Your task to perform on an android device: Open calendar and show me the third week of next month Image 0: 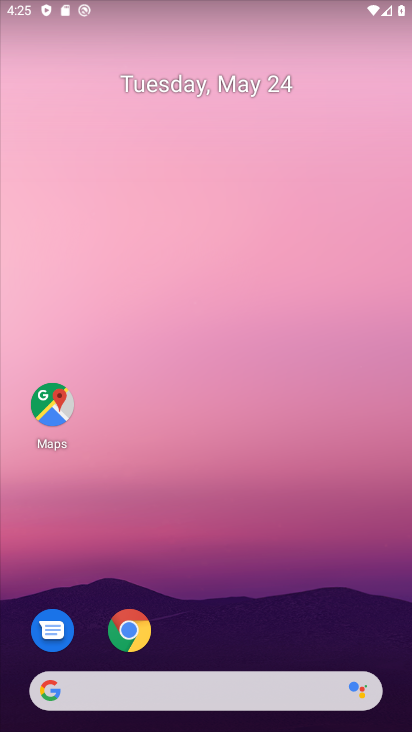
Step 0: click (232, 88)
Your task to perform on an android device: Open calendar and show me the third week of next month Image 1: 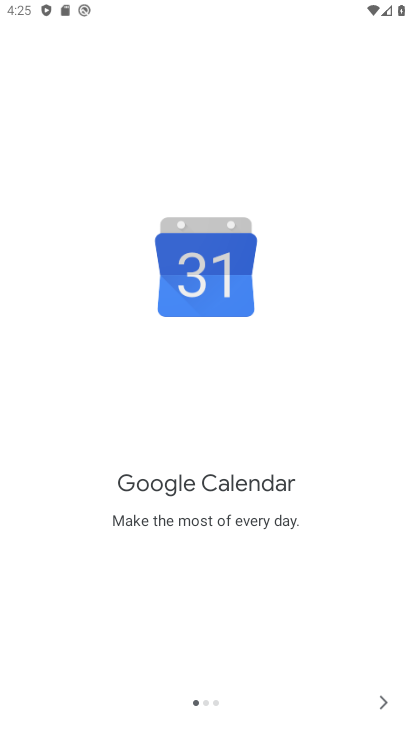
Step 1: click (382, 694)
Your task to perform on an android device: Open calendar and show me the third week of next month Image 2: 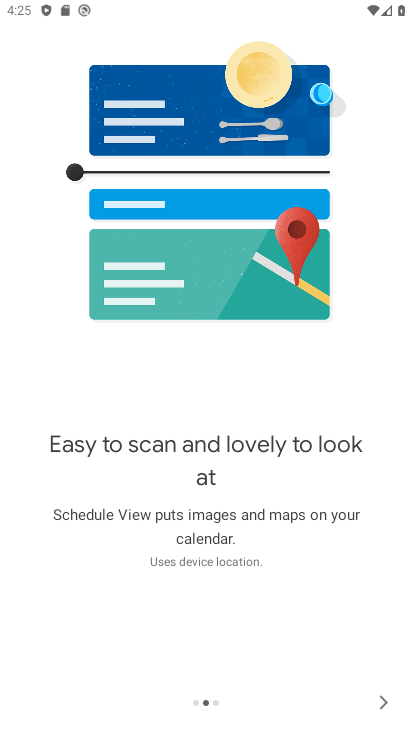
Step 2: click (382, 694)
Your task to perform on an android device: Open calendar and show me the third week of next month Image 3: 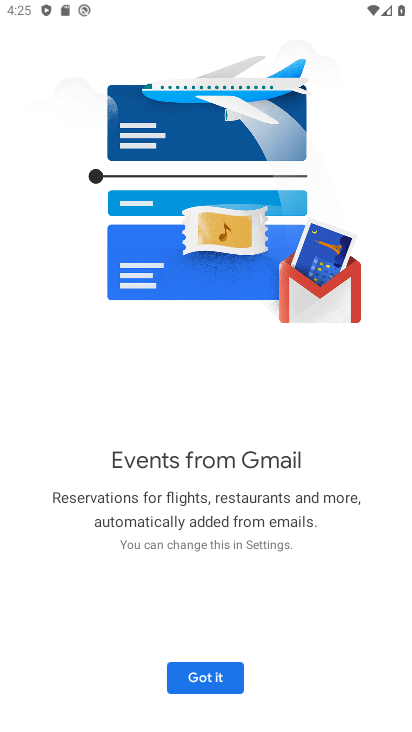
Step 3: click (231, 686)
Your task to perform on an android device: Open calendar and show me the third week of next month Image 4: 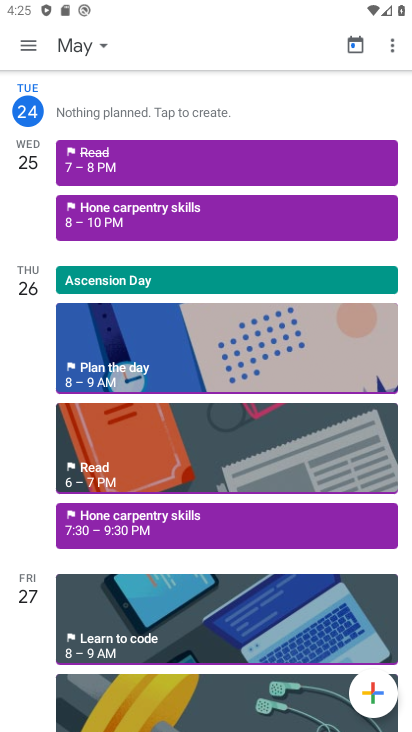
Step 4: click (90, 63)
Your task to perform on an android device: Open calendar and show me the third week of next month Image 5: 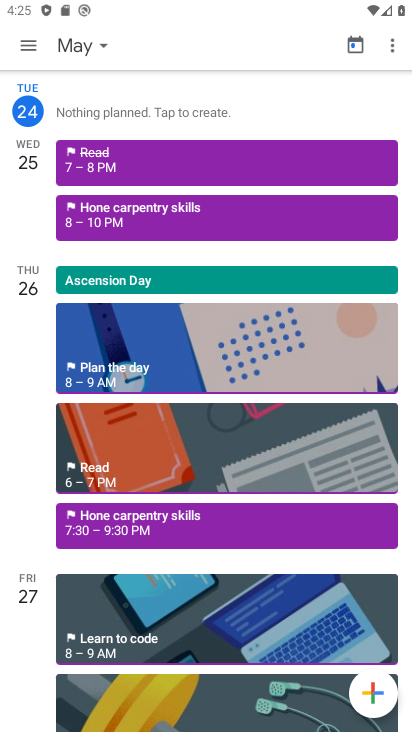
Step 5: click (83, 42)
Your task to perform on an android device: Open calendar and show me the third week of next month Image 6: 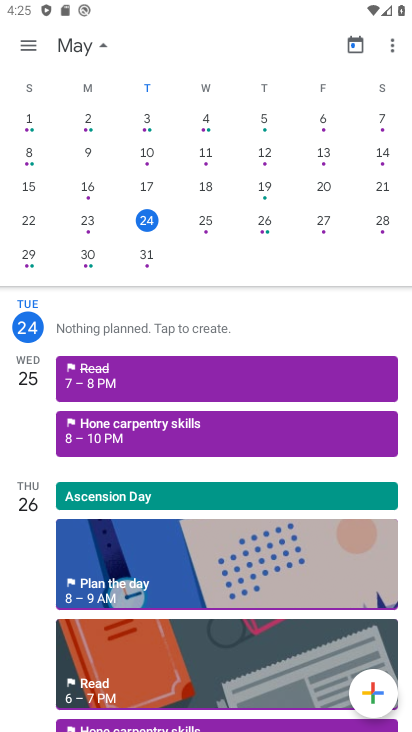
Step 6: drag from (355, 258) to (24, 236)
Your task to perform on an android device: Open calendar and show me the third week of next month Image 7: 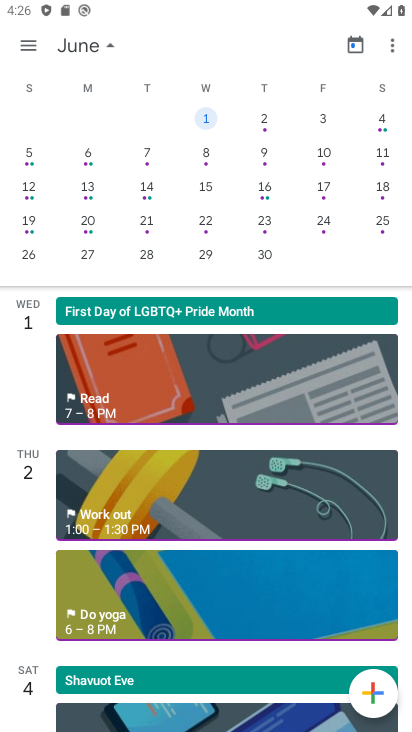
Step 7: click (200, 189)
Your task to perform on an android device: Open calendar and show me the third week of next month Image 8: 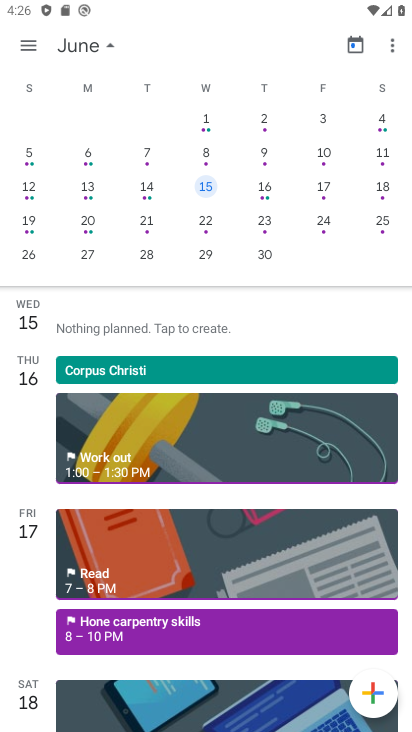
Step 8: task complete